Your task to perform on an android device: clear all cookies in the chrome app Image 0: 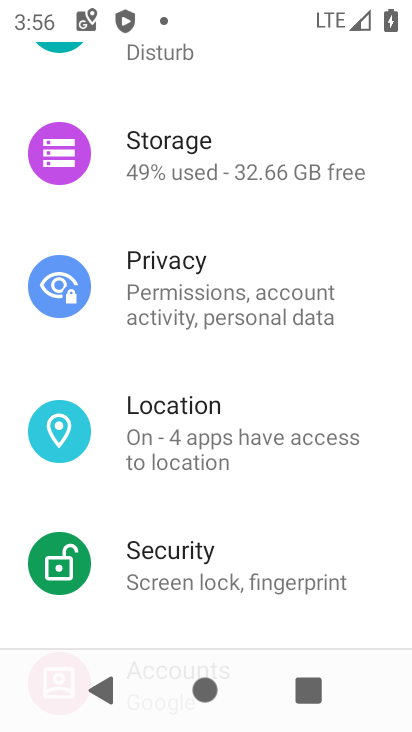
Step 0: press home button
Your task to perform on an android device: clear all cookies in the chrome app Image 1: 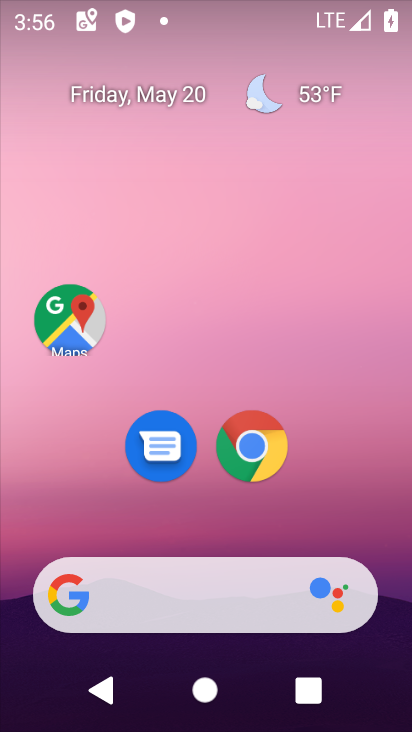
Step 1: click (260, 468)
Your task to perform on an android device: clear all cookies in the chrome app Image 2: 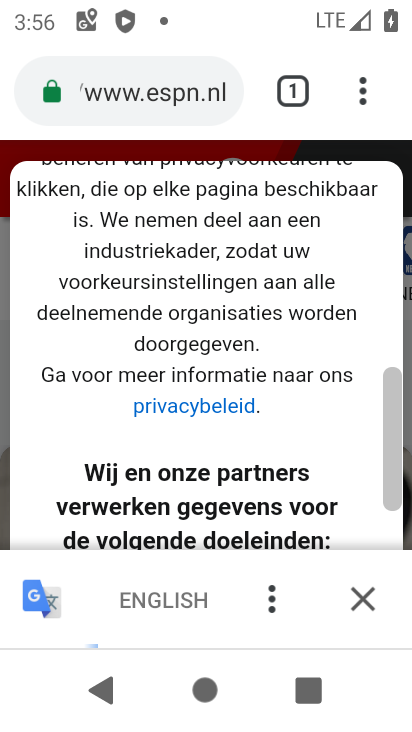
Step 2: drag from (362, 81) to (129, 407)
Your task to perform on an android device: clear all cookies in the chrome app Image 3: 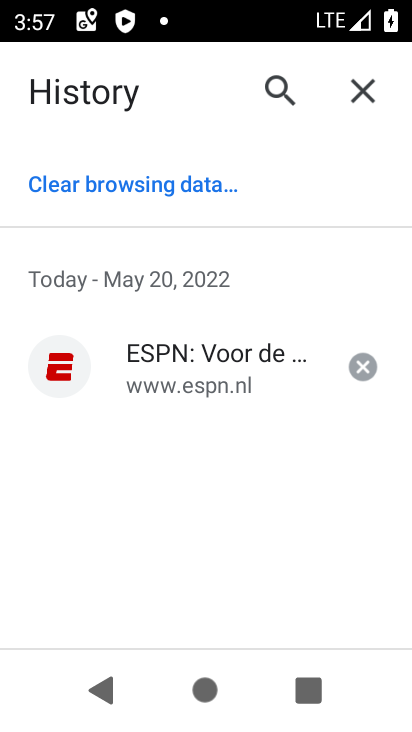
Step 3: click (106, 189)
Your task to perform on an android device: clear all cookies in the chrome app Image 4: 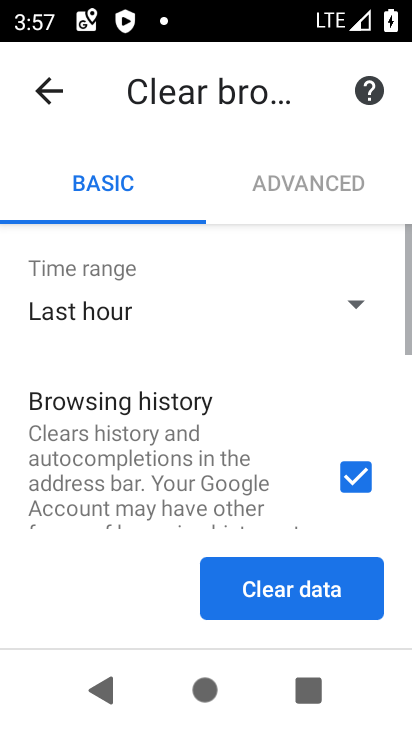
Step 4: click (335, 584)
Your task to perform on an android device: clear all cookies in the chrome app Image 5: 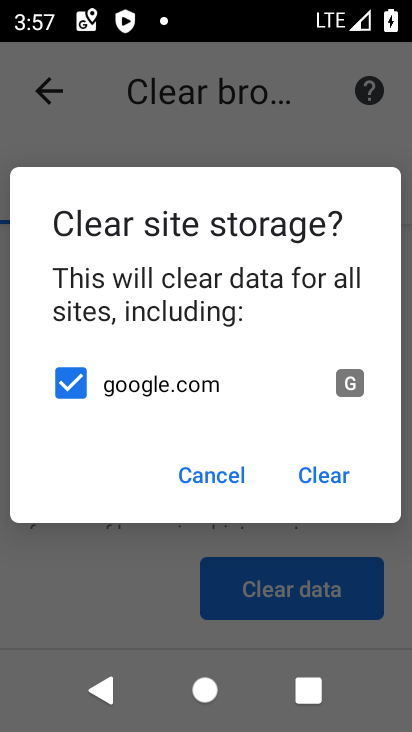
Step 5: click (345, 477)
Your task to perform on an android device: clear all cookies in the chrome app Image 6: 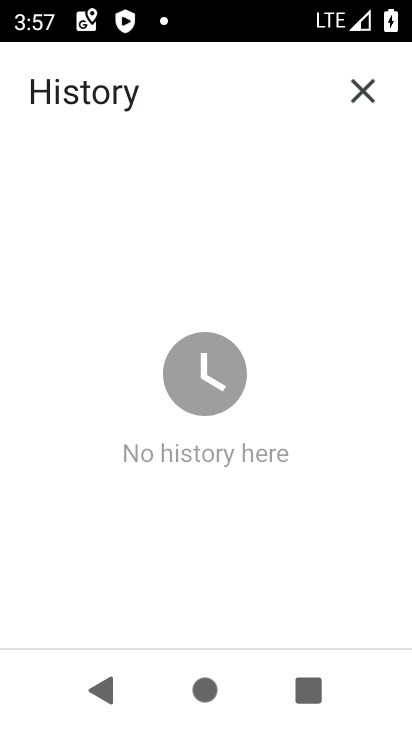
Step 6: task complete